Your task to perform on an android device: Do I have any events this weekend? Image 0: 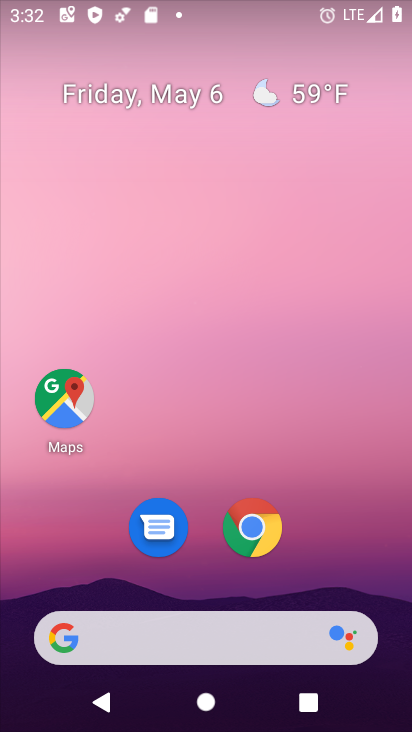
Step 0: drag from (303, 361) to (318, 221)
Your task to perform on an android device: Do I have any events this weekend? Image 1: 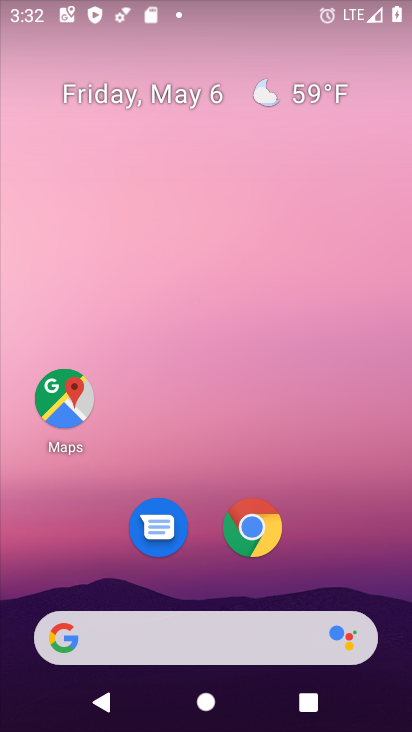
Step 1: drag from (317, 519) to (270, 54)
Your task to perform on an android device: Do I have any events this weekend? Image 2: 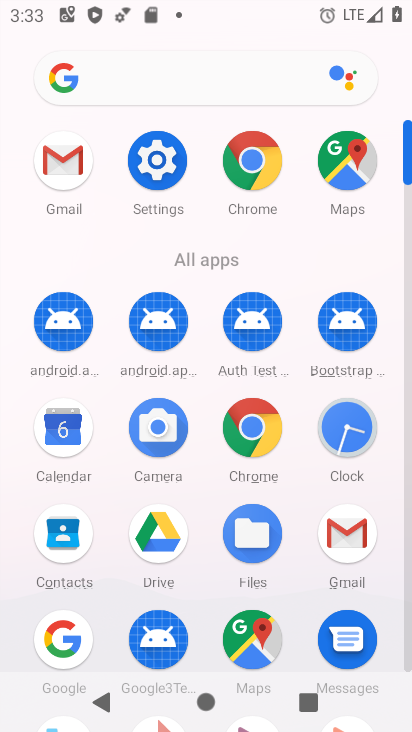
Step 2: click (64, 422)
Your task to perform on an android device: Do I have any events this weekend? Image 3: 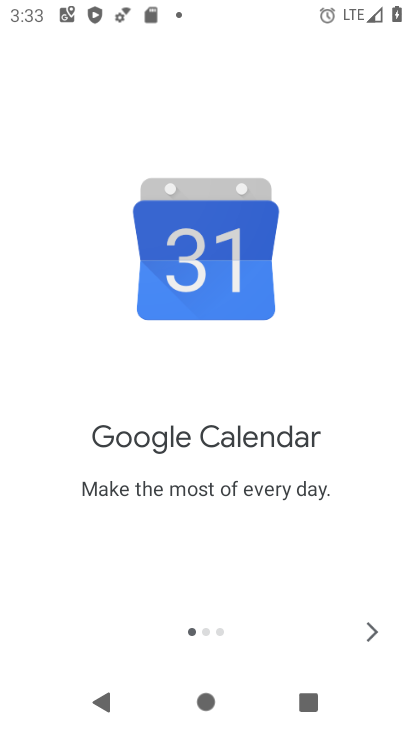
Step 3: click (377, 625)
Your task to perform on an android device: Do I have any events this weekend? Image 4: 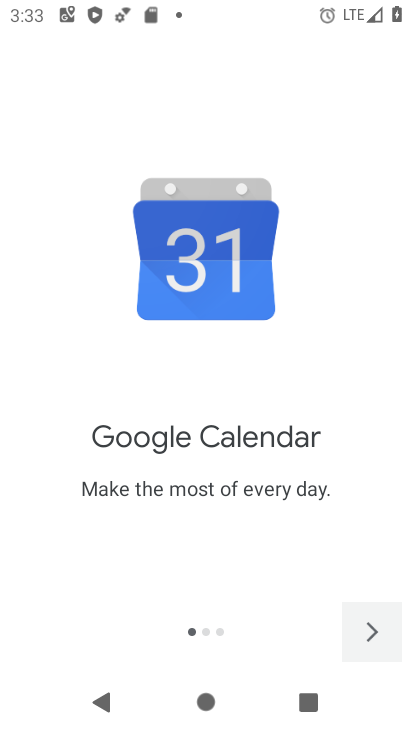
Step 4: click (373, 621)
Your task to perform on an android device: Do I have any events this weekend? Image 5: 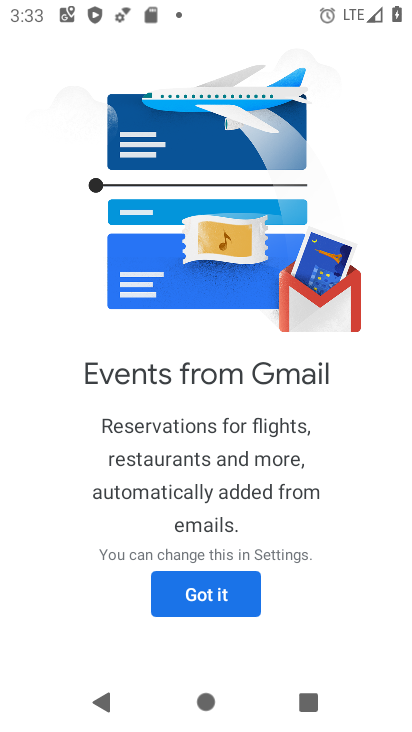
Step 5: click (190, 593)
Your task to perform on an android device: Do I have any events this weekend? Image 6: 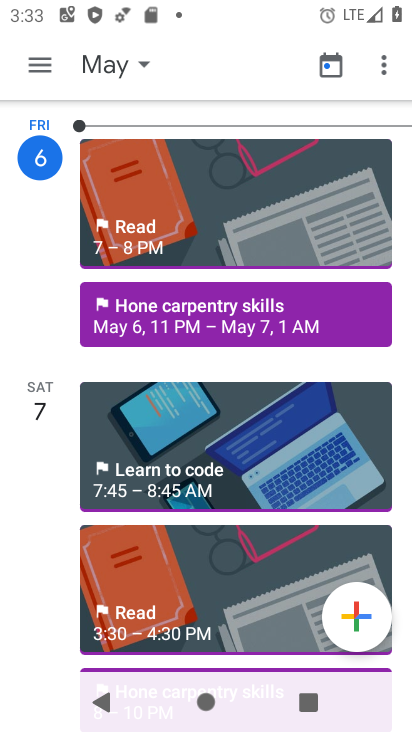
Step 6: task complete